Your task to perform on an android device: turn off location history Image 0: 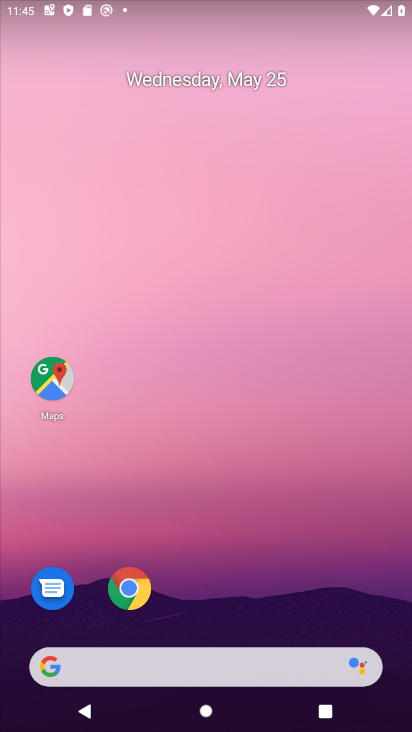
Step 0: drag from (224, 512) to (217, 52)
Your task to perform on an android device: turn off location history Image 1: 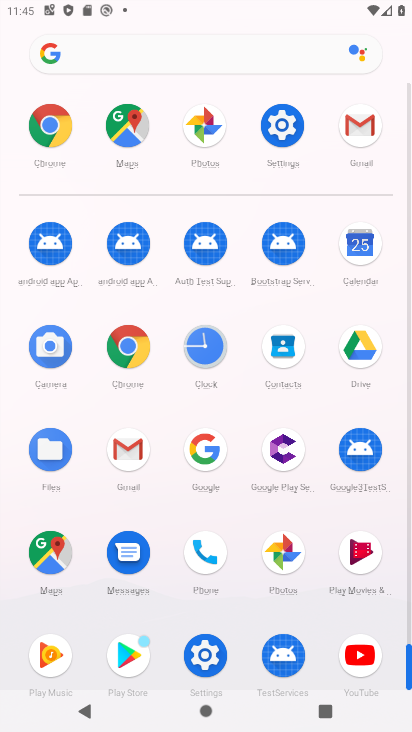
Step 1: drag from (19, 528) to (13, 252)
Your task to perform on an android device: turn off location history Image 2: 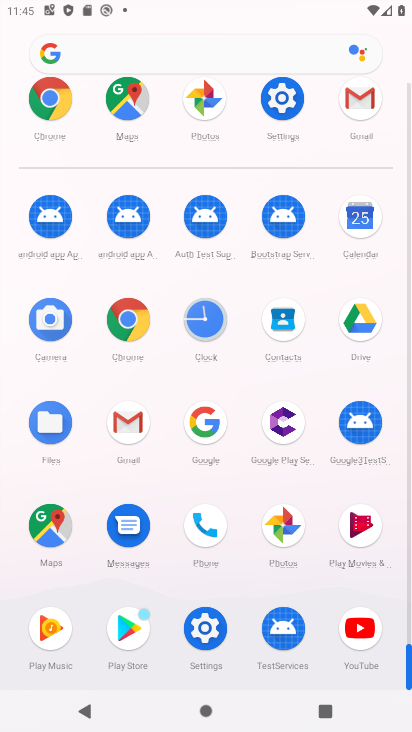
Step 2: click (206, 628)
Your task to perform on an android device: turn off location history Image 3: 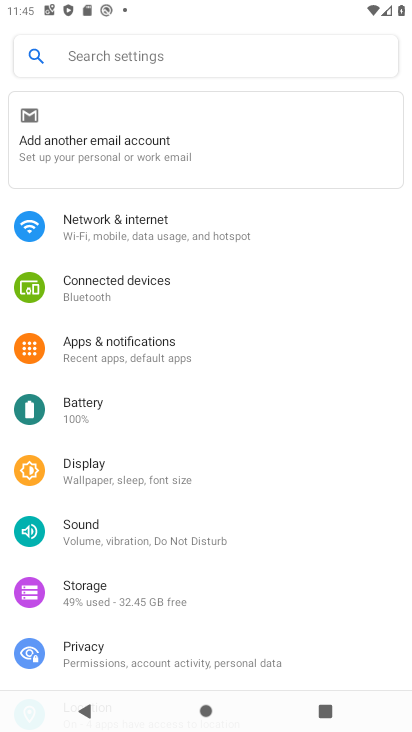
Step 3: drag from (245, 659) to (281, 205)
Your task to perform on an android device: turn off location history Image 4: 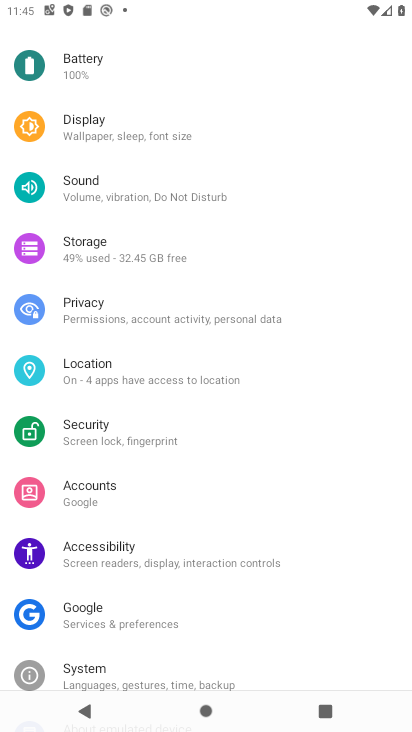
Step 4: click (129, 370)
Your task to perform on an android device: turn off location history Image 5: 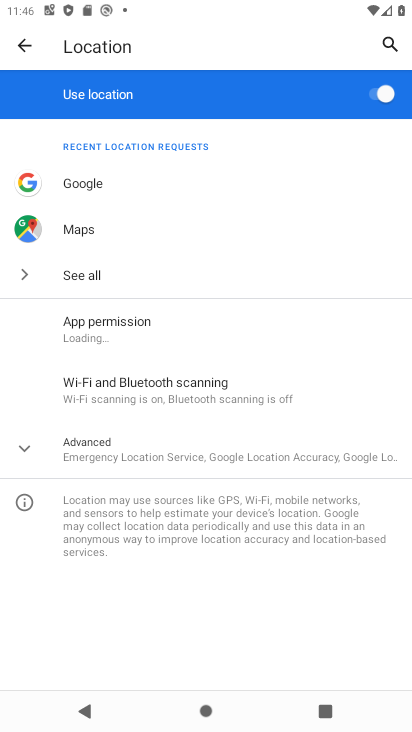
Step 5: click (35, 454)
Your task to perform on an android device: turn off location history Image 6: 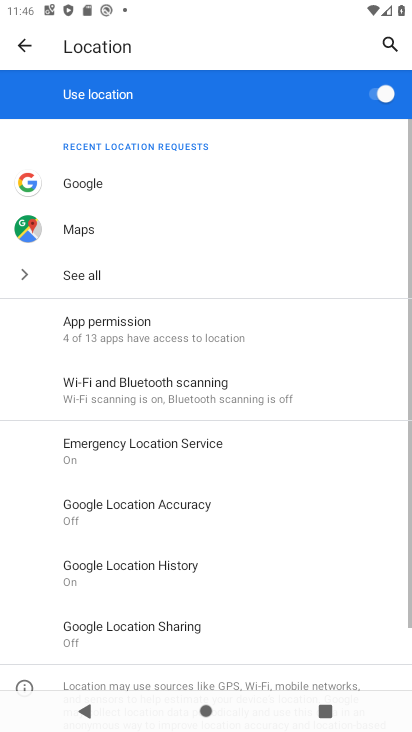
Step 6: click (160, 569)
Your task to perform on an android device: turn off location history Image 7: 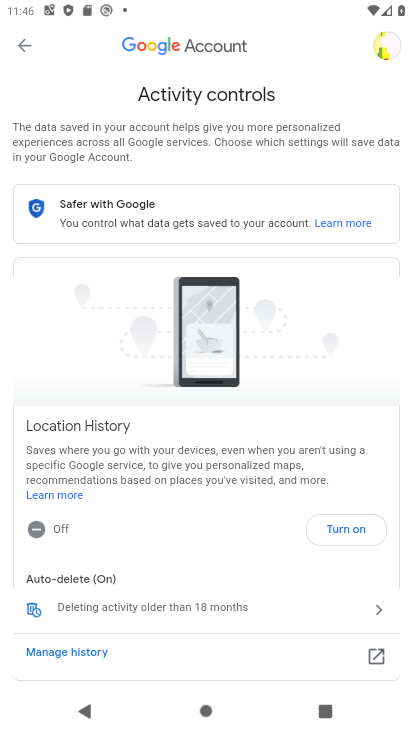
Step 7: task complete